Your task to perform on an android device: toggle translation in the chrome app Image 0: 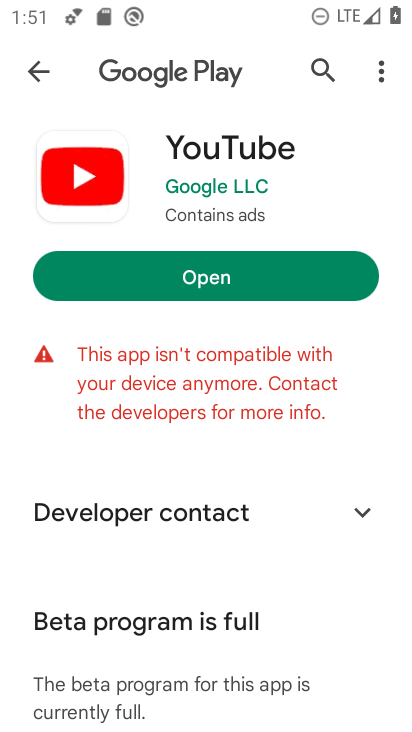
Step 0: press home button
Your task to perform on an android device: toggle translation in the chrome app Image 1: 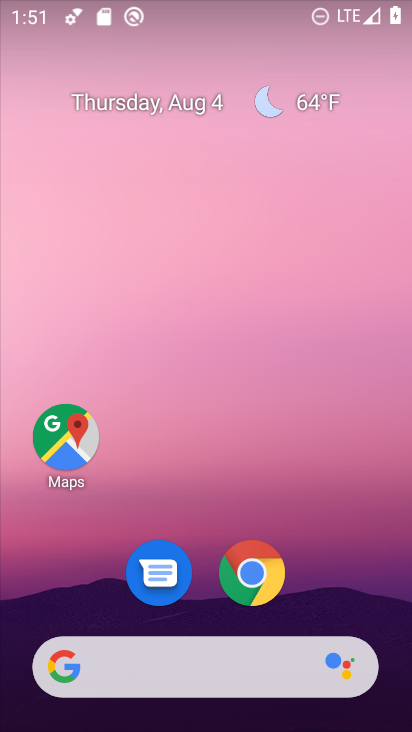
Step 1: drag from (314, 494) to (238, 134)
Your task to perform on an android device: toggle translation in the chrome app Image 2: 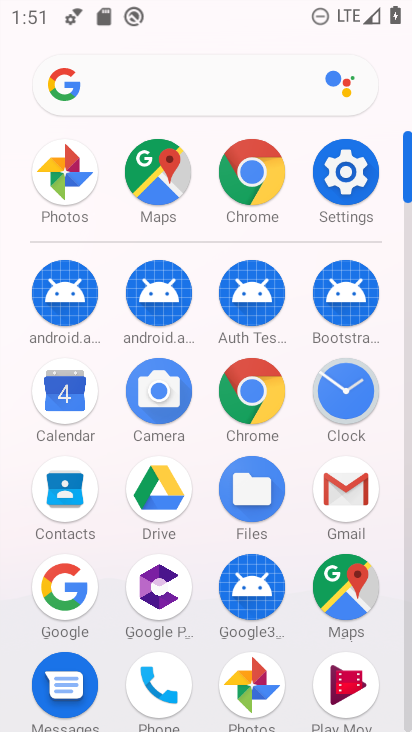
Step 2: click (256, 392)
Your task to perform on an android device: toggle translation in the chrome app Image 3: 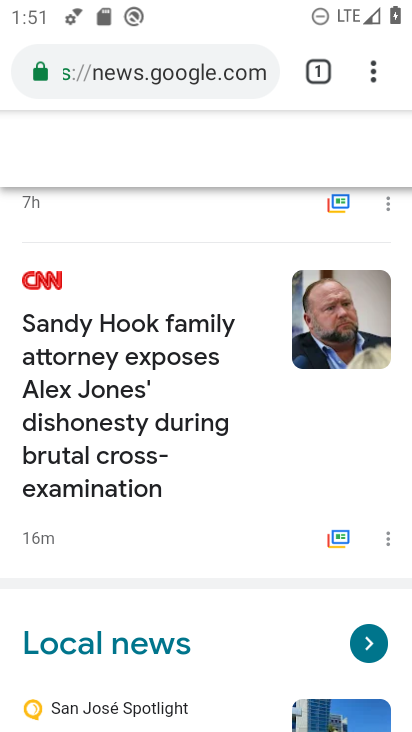
Step 3: drag from (370, 67) to (190, 571)
Your task to perform on an android device: toggle translation in the chrome app Image 4: 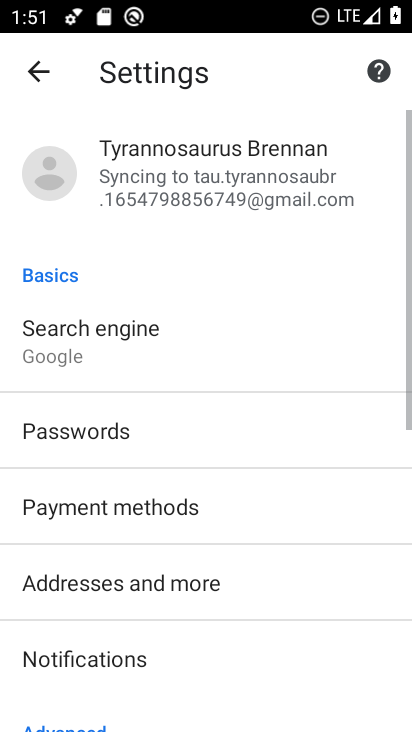
Step 4: drag from (194, 624) to (220, 188)
Your task to perform on an android device: toggle translation in the chrome app Image 5: 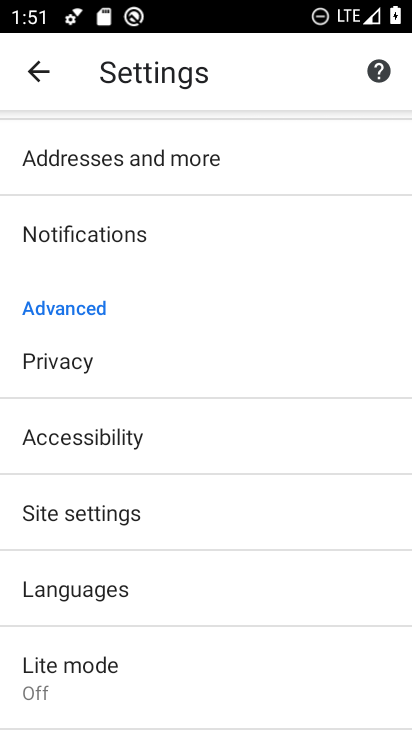
Step 5: click (77, 583)
Your task to perform on an android device: toggle translation in the chrome app Image 6: 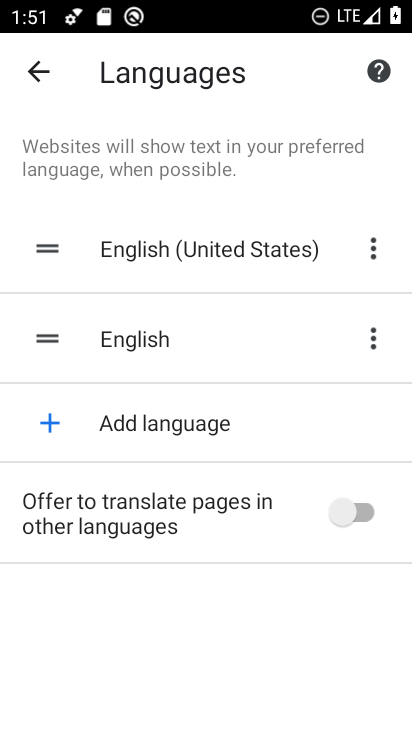
Step 6: click (330, 501)
Your task to perform on an android device: toggle translation in the chrome app Image 7: 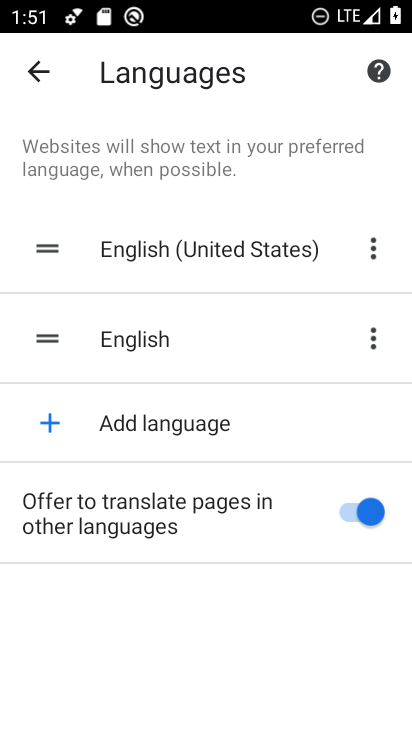
Step 7: task complete